Your task to perform on an android device: toggle data saver in the chrome app Image 0: 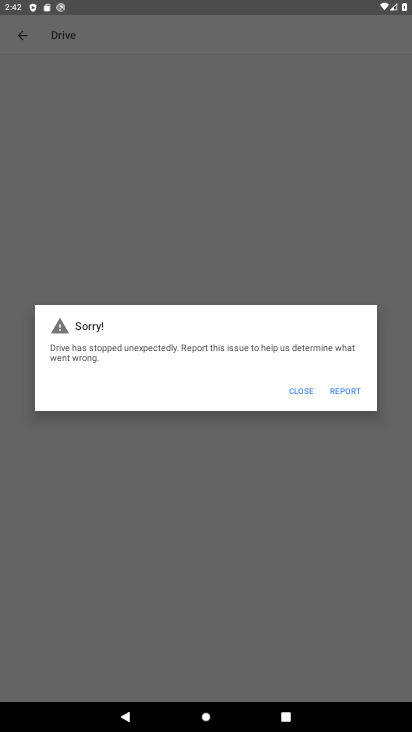
Step 0: press home button
Your task to perform on an android device: toggle data saver in the chrome app Image 1: 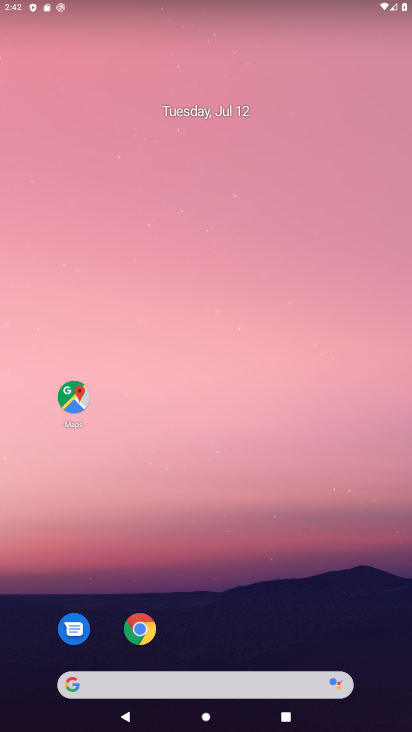
Step 1: click (145, 635)
Your task to perform on an android device: toggle data saver in the chrome app Image 2: 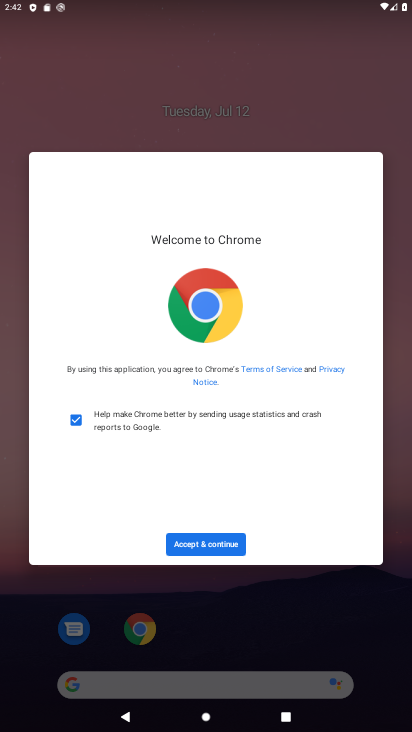
Step 2: click (205, 537)
Your task to perform on an android device: toggle data saver in the chrome app Image 3: 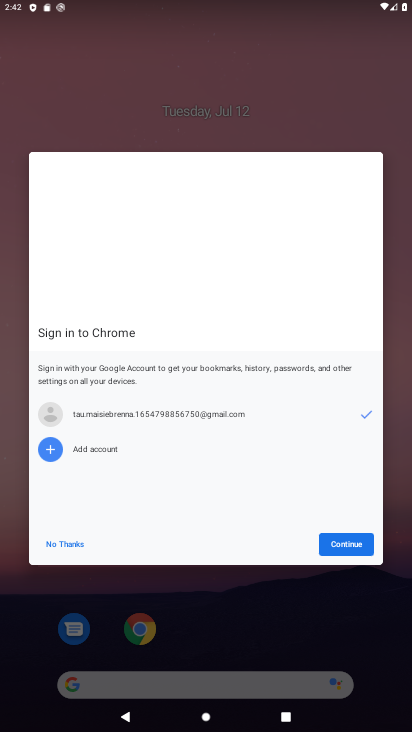
Step 3: click (353, 543)
Your task to perform on an android device: toggle data saver in the chrome app Image 4: 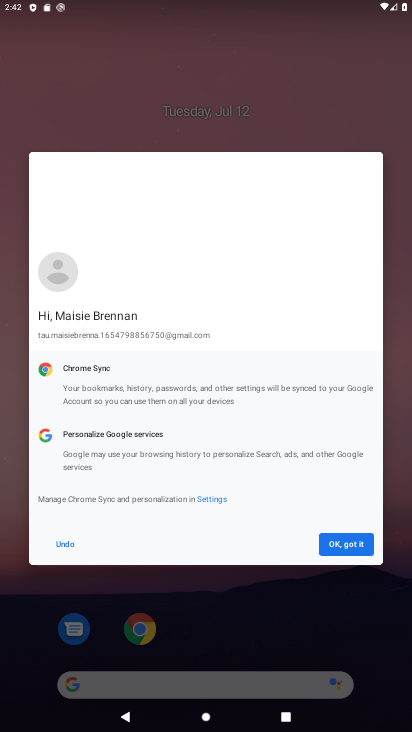
Step 4: click (353, 543)
Your task to perform on an android device: toggle data saver in the chrome app Image 5: 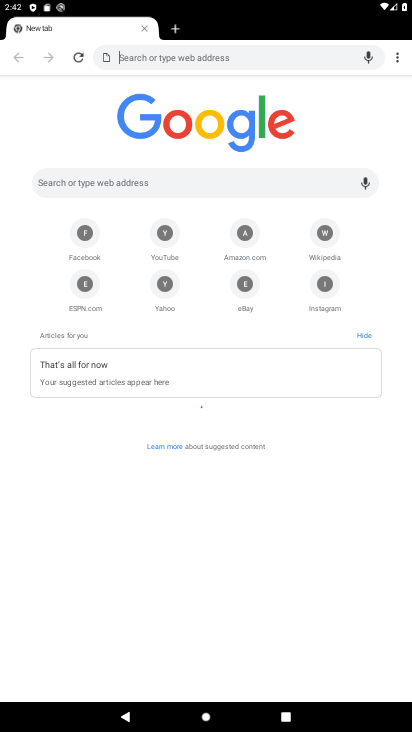
Step 5: drag from (397, 53) to (271, 262)
Your task to perform on an android device: toggle data saver in the chrome app Image 6: 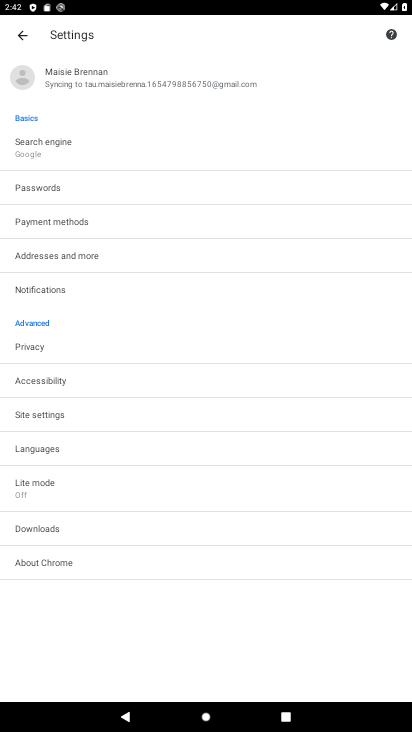
Step 6: click (41, 483)
Your task to perform on an android device: toggle data saver in the chrome app Image 7: 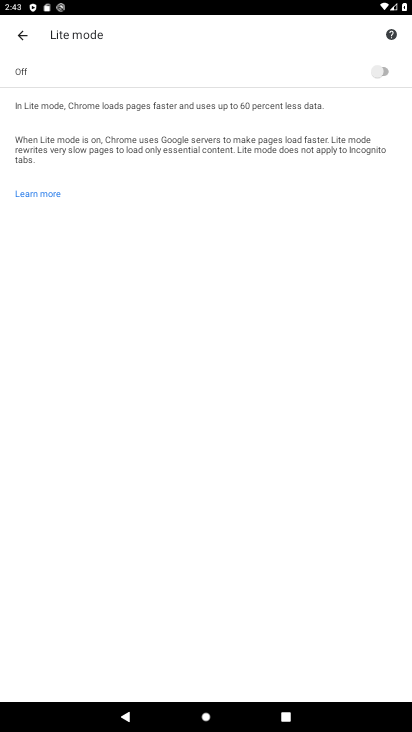
Step 7: click (388, 66)
Your task to perform on an android device: toggle data saver in the chrome app Image 8: 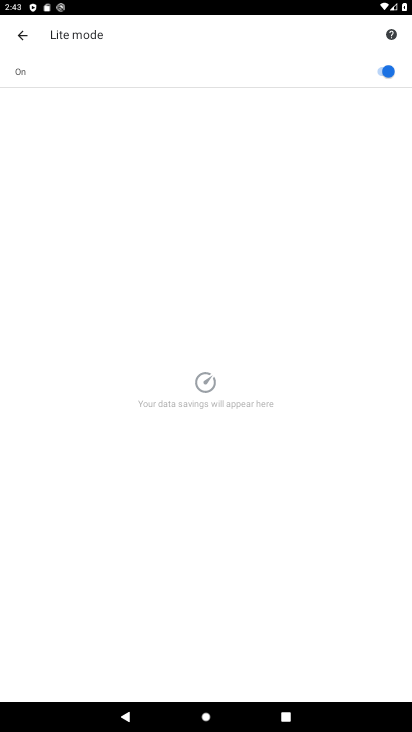
Step 8: task complete